Your task to perform on an android device: turn off location history Image 0: 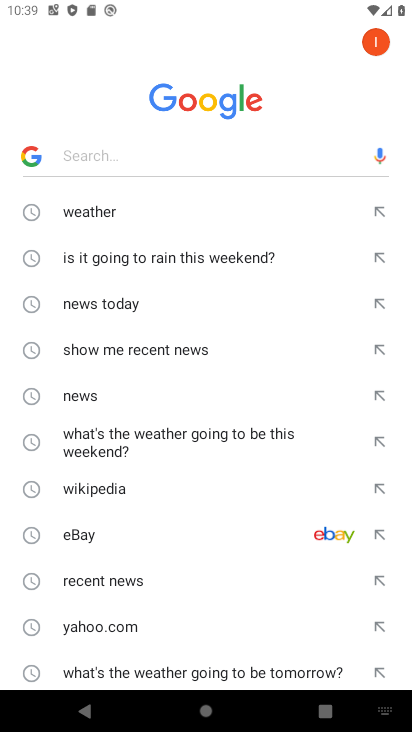
Step 0: press home button
Your task to perform on an android device: turn off location history Image 1: 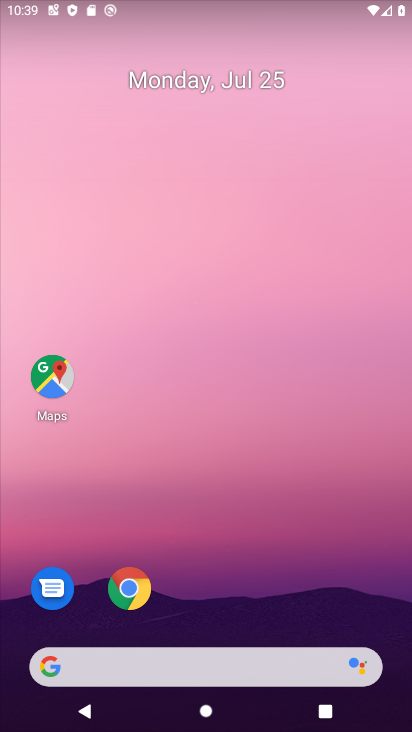
Step 1: drag from (298, 596) to (305, 0)
Your task to perform on an android device: turn off location history Image 2: 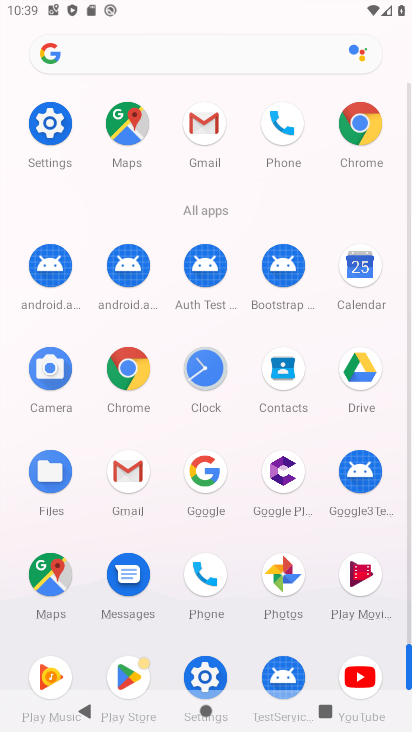
Step 2: click (211, 667)
Your task to perform on an android device: turn off location history Image 3: 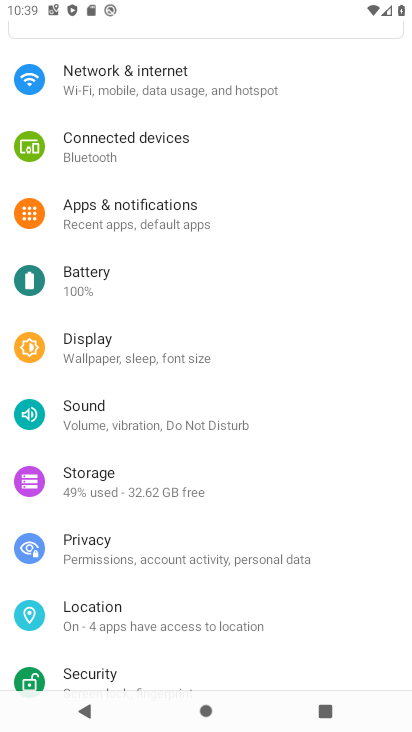
Step 3: click (190, 631)
Your task to perform on an android device: turn off location history Image 4: 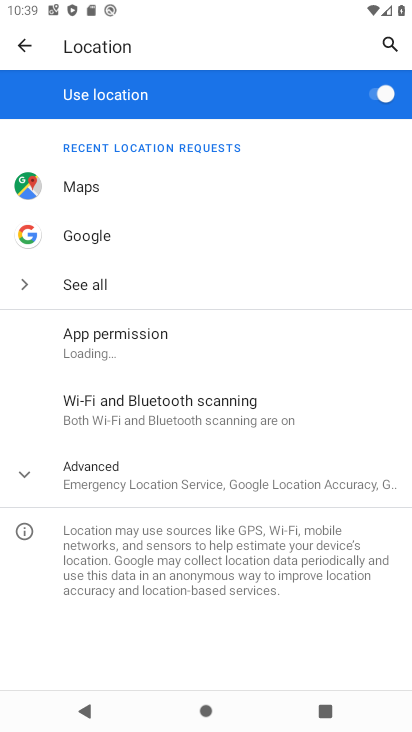
Step 4: click (180, 480)
Your task to perform on an android device: turn off location history Image 5: 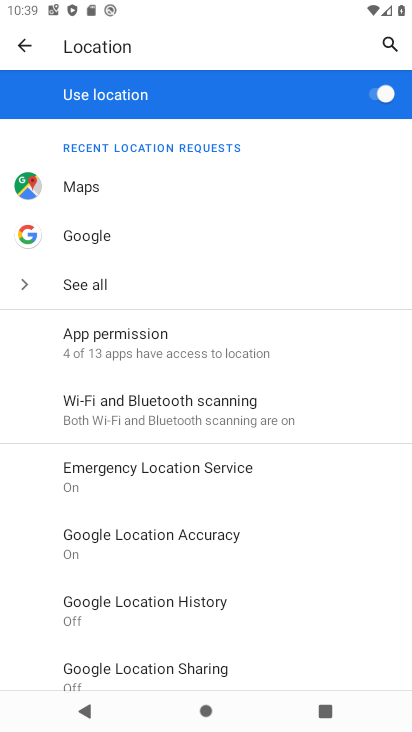
Step 5: click (219, 599)
Your task to perform on an android device: turn off location history Image 6: 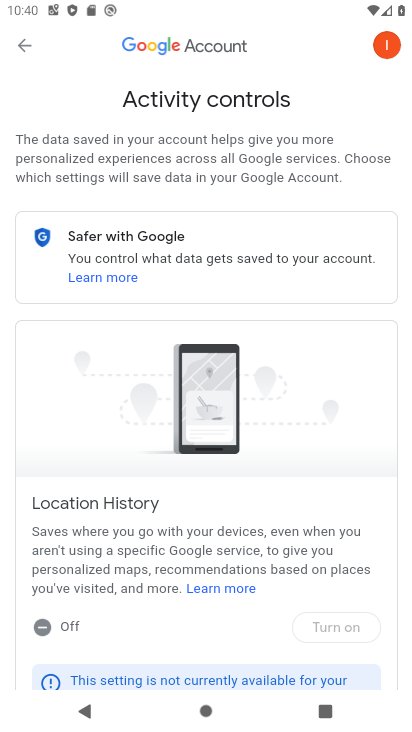
Step 6: task complete